Your task to perform on an android device: turn off improve location accuracy Image 0: 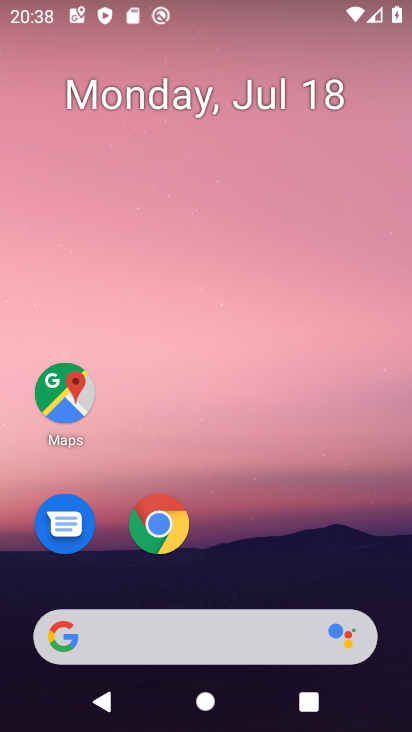
Step 0: drag from (289, 548) to (244, 77)
Your task to perform on an android device: turn off improve location accuracy Image 1: 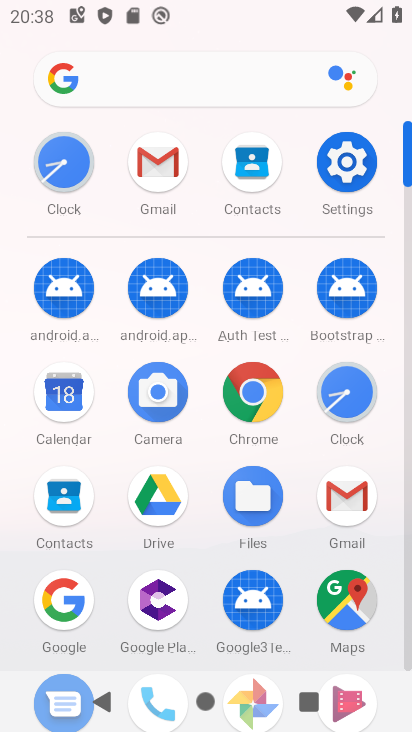
Step 1: click (351, 163)
Your task to perform on an android device: turn off improve location accuracy Image 2: 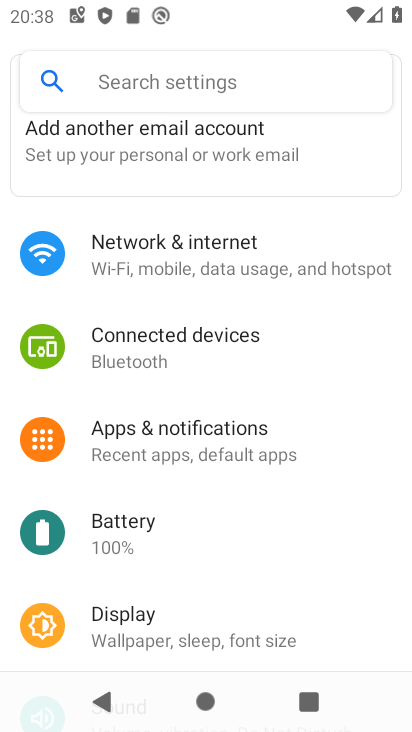
Step 2: drag from (211, 494) to (226, 132)
Your task to perform on an android device: turn off improve location accuracy Image 3: 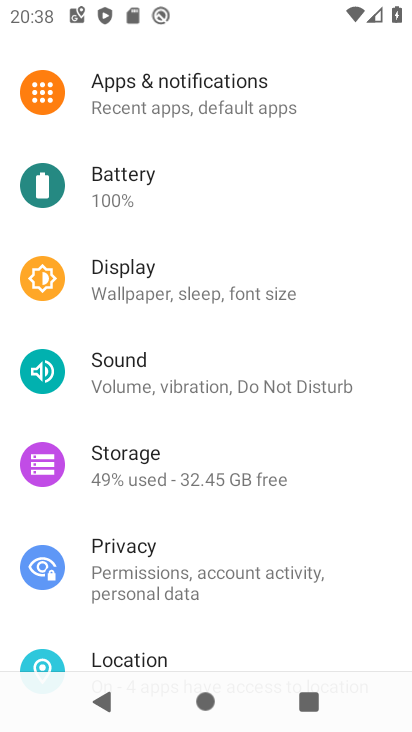
Step 3: drag from (229, 433) to (220, 74)
Your task to perform on an android device: turn off improve location accuracy Image 4: 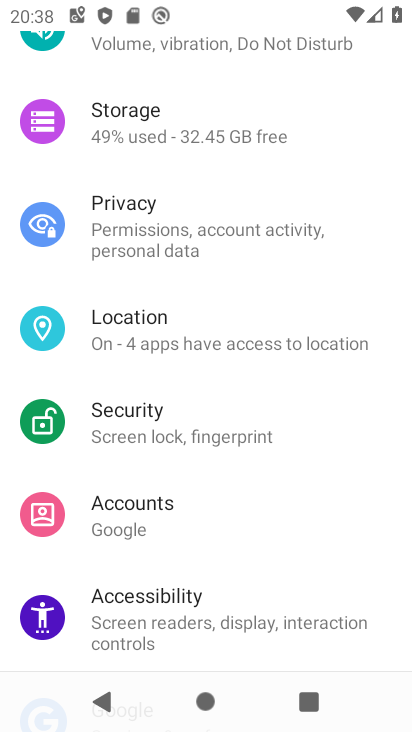
Step 4: click (207, 334)
Your task to perform on an android device: turn off improve location accuracy Image 5: 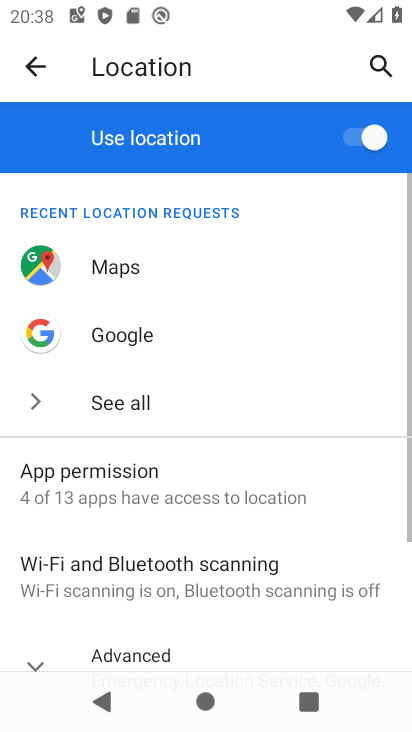
Step 5: drag from (200, 485) to (238, 130)
Your task to perform on an android device: turn off improve location accuracy Image 6: 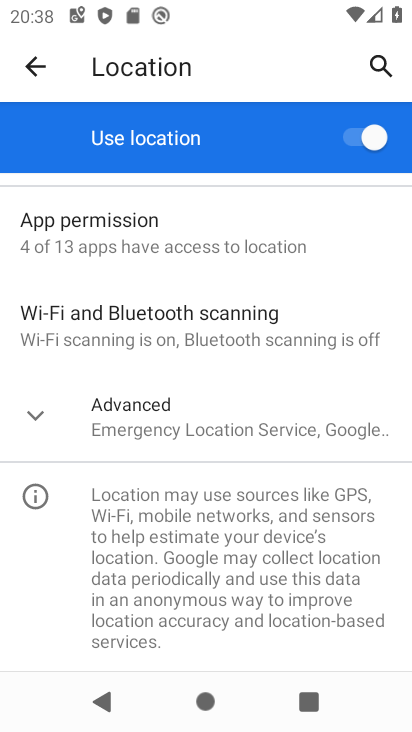
Step 6: click (37, 413)
Your task to perform on an android device: turn off improve location accuracy Image 7: 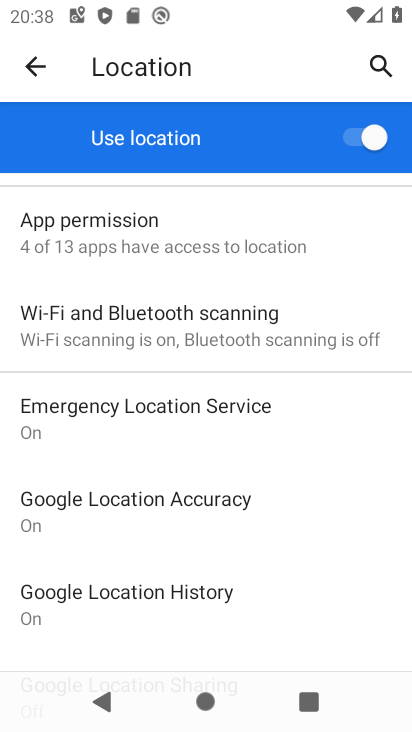
Step 7: click (145, 510)
Your task to perform on an android device: turn off improve location accuracy Image 8: 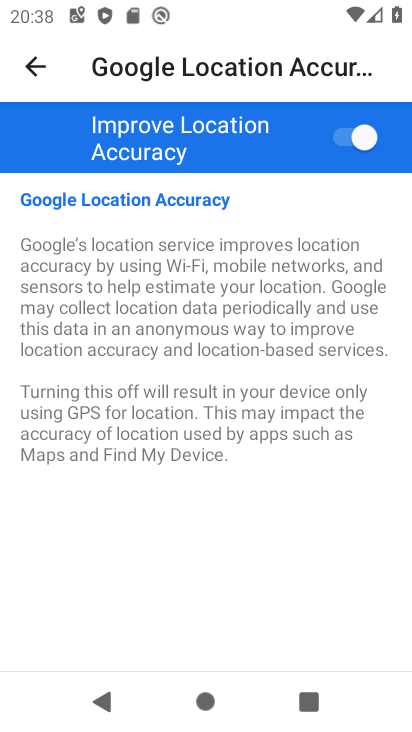
Step 8: click (360, 136)
Your task to perform on an android device: turn off improve location accuracy Image 9: 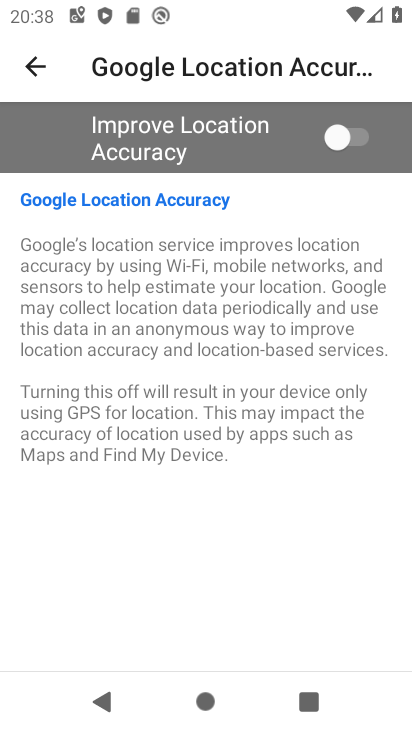
Step 9: task complete